Your task to perform on an android device: turn pop-ups on in chrome Image 0: 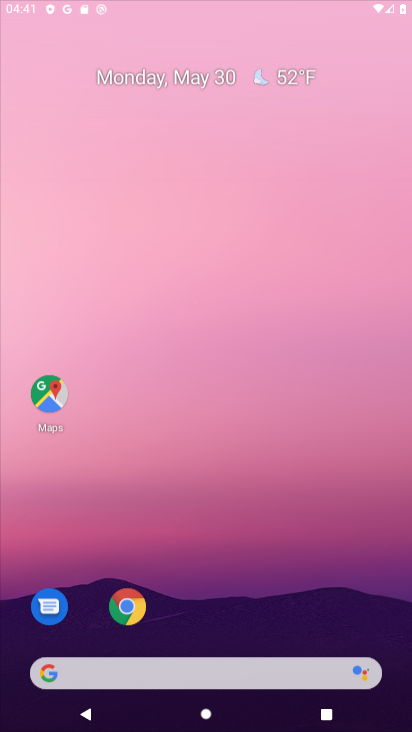
Step 0: drag from (173, 673) to (179, 239)
Your task to perform on an android device: turn pop-ups on in chrome Image 1: 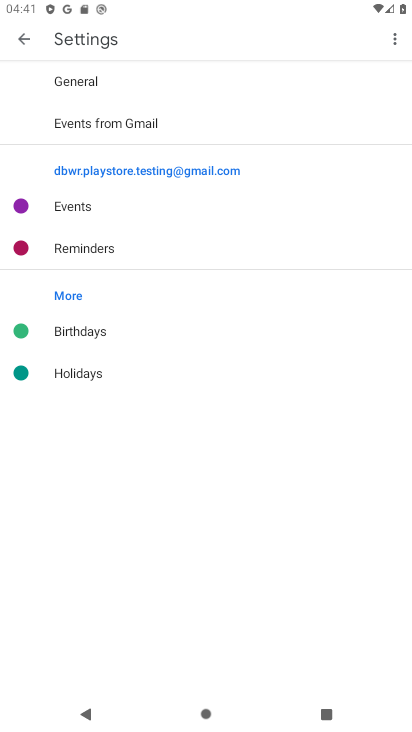
Step 1: press home button
Your task to perform on an android device: turn pop-ups on in chrome Image 2: 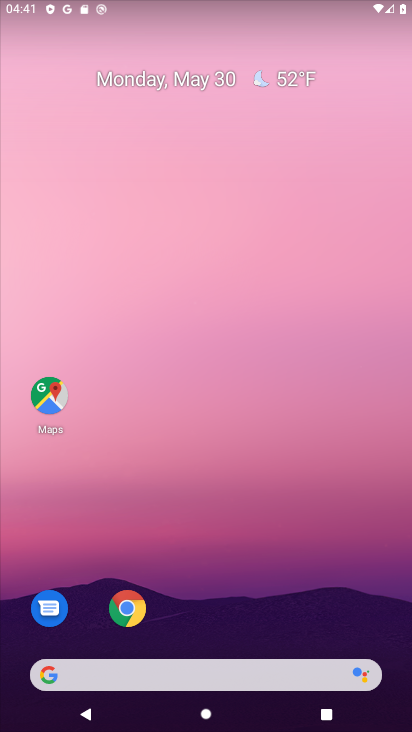
Step 2: click (133, 600)
Your task to perform on an android device: turn pop-ups on in chrome Image 3: 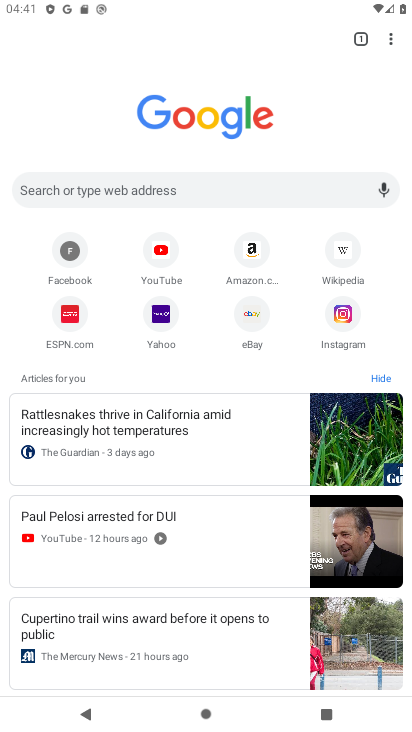
Step 3: click (390, 32)
Your task to perform on an android device: turn pop-ups on in chrome Image 4: 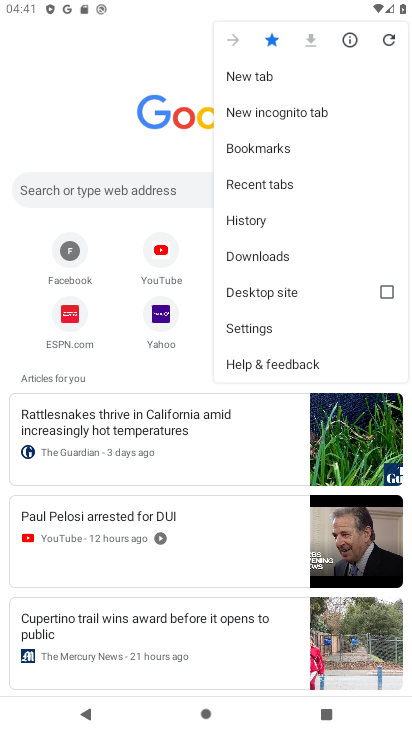
Step 4: click (251, 327)
Your task to perform on an android device: turn pop-ups on in chrome Image 5: 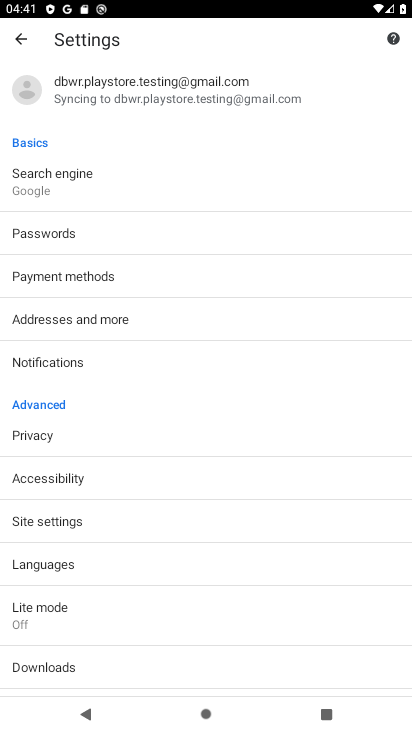
Step 5: drag from (97, 630) to (89, 216)
Your task to perform on an android device: turn pop-ups on in chrome Image 6: 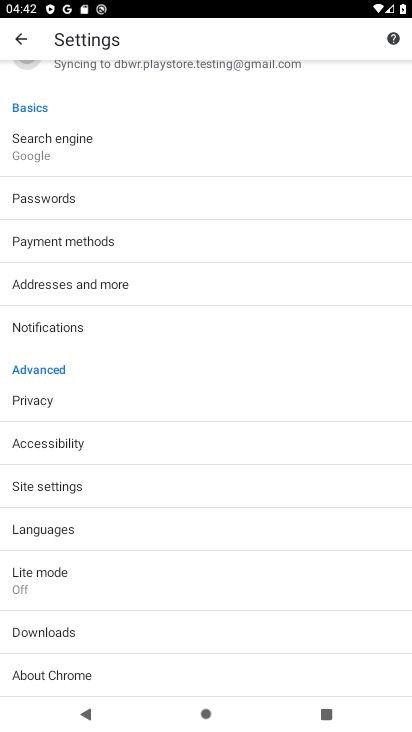
Step 6: click (44, 486)
Your task to perform on an android device: turn pop-ups on in chrome Image 7: 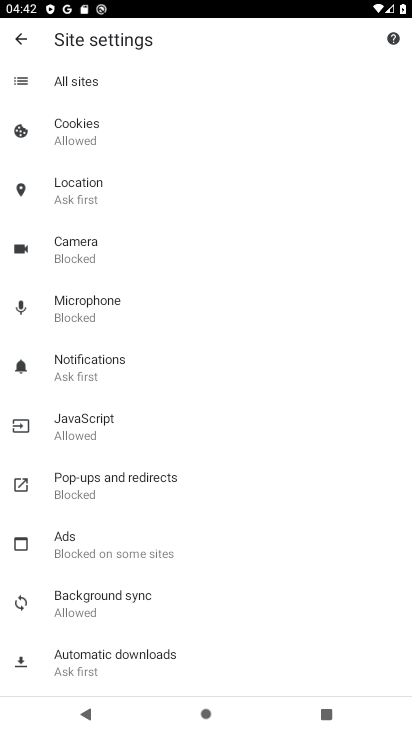
Step 7: click (68, 486)
Your task to perform on an android device: turn pop-ups on in chrome Image 8: 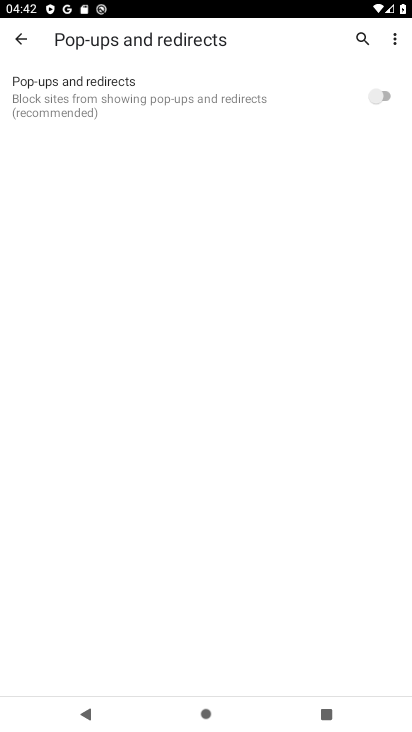
Step 8: click (386, 93)
Your task to perform on an android device: turn pop-ups on in chrome Image 9: 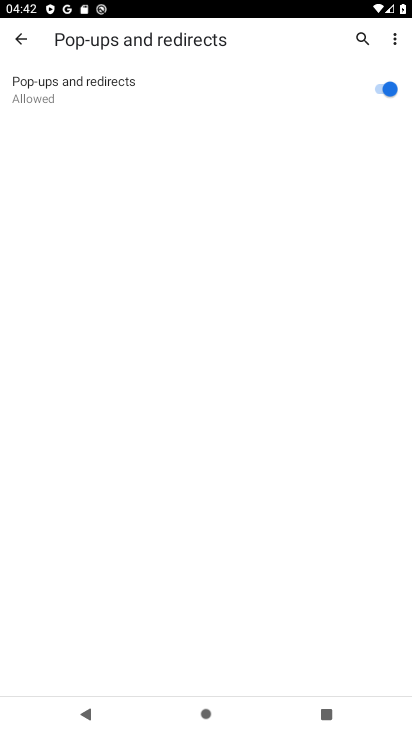
Step 9: task complete